Your task to perform on an android device: check google app version Image 0: 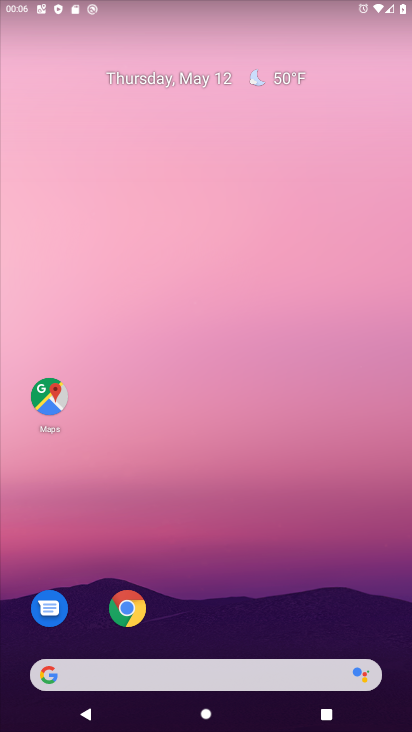
Step 0: drag from (291, 578) to (284, 27)
Your task to perform on an android device: check google app version Image 1: 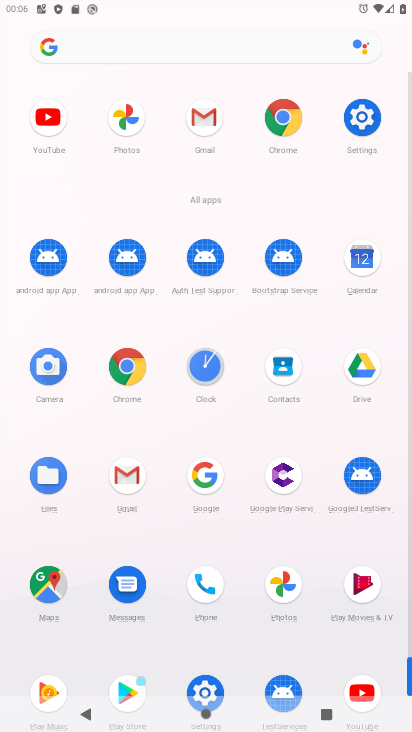
Step 1: click (203, 475)
Your task to perform on an android device: check google app version Image 2: 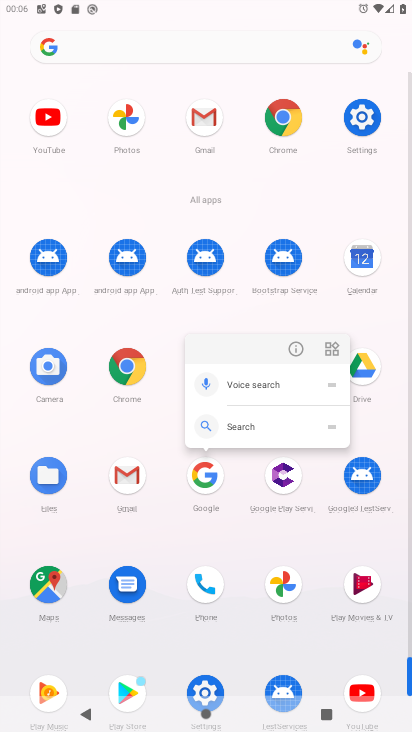
Step 2: click (294, 352)
Your task to perform on an android device: check google app version Image 3: 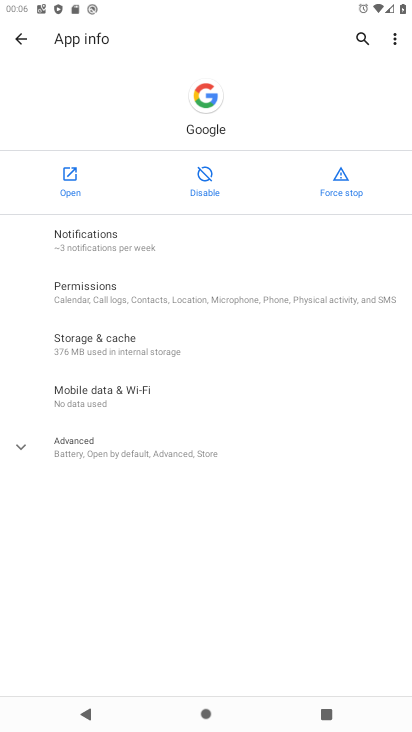
Step 3: click (148, 449)
Your task to perform on an android device: check google app version Image 4: 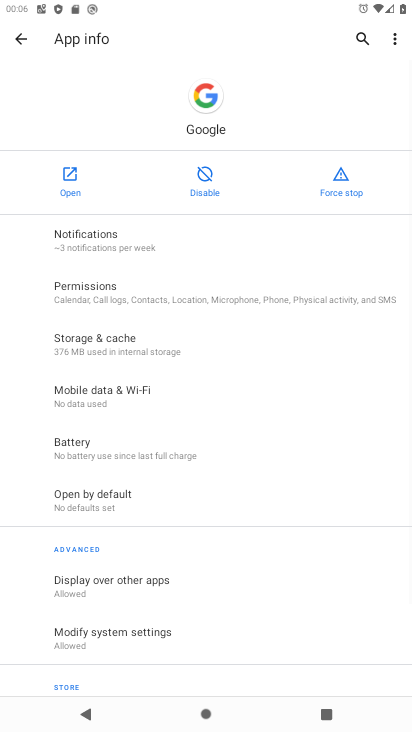
Step 4: task complete